Your task to perform on an android device: change the clock style Image 0: 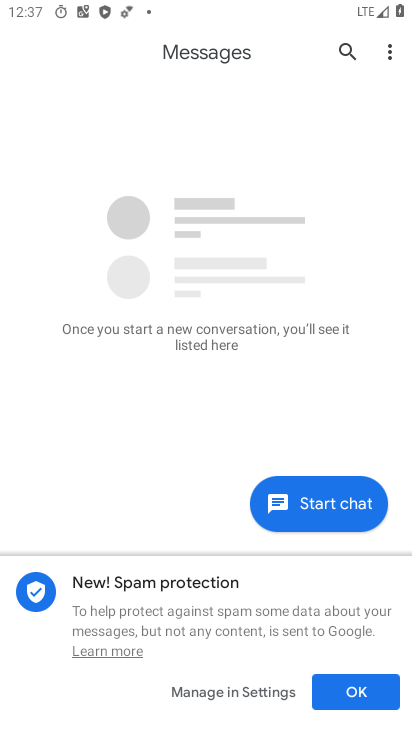
Step 0: press home button
Your task to perform on an android device: change the clock style Image 1: 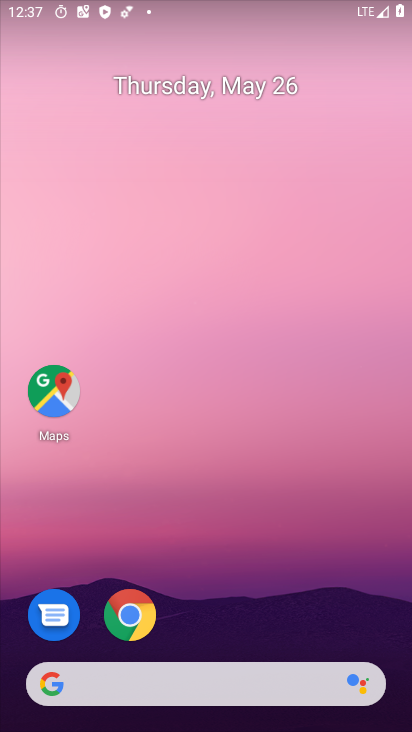
Step 1: drag from (231, 624) to (212, 231)
Your task to perform on an android device: change the clock style Image 2: 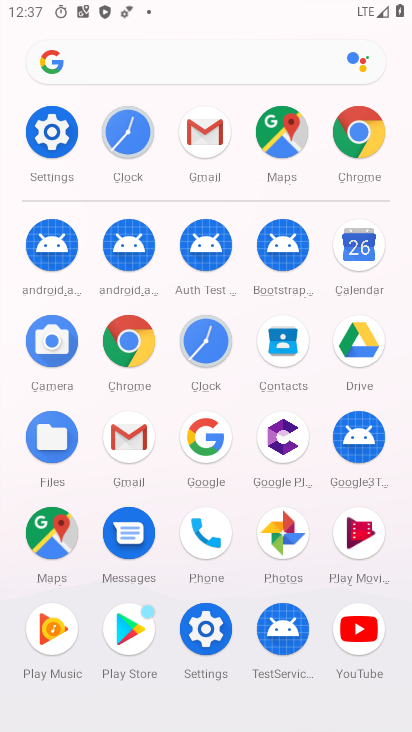
Step 2: click (127, 141)
Your task to perform on an android device: change the clock style Image 3: 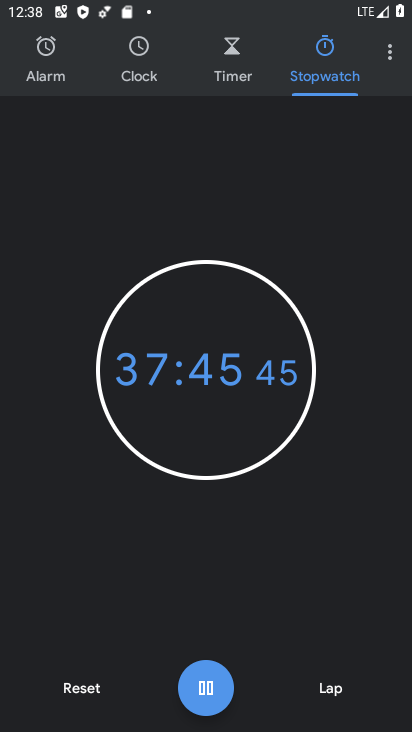
Step 3: click (390, 58)
Your task to perform on an android device: change the clock style Image 4: 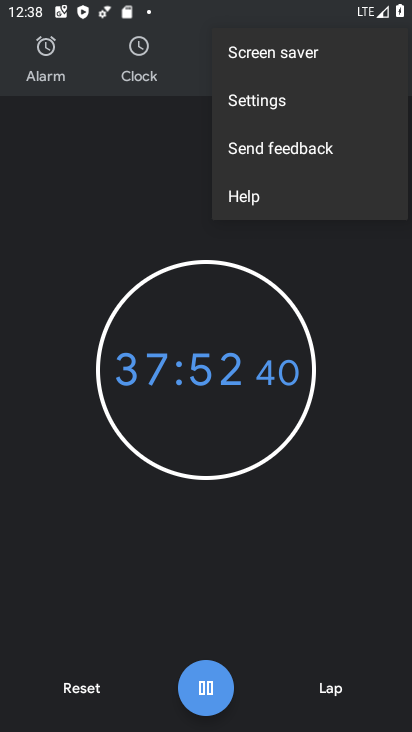
Step 4: click (328, 102)
Your task to perform on an android device: change the clock style Image 5: 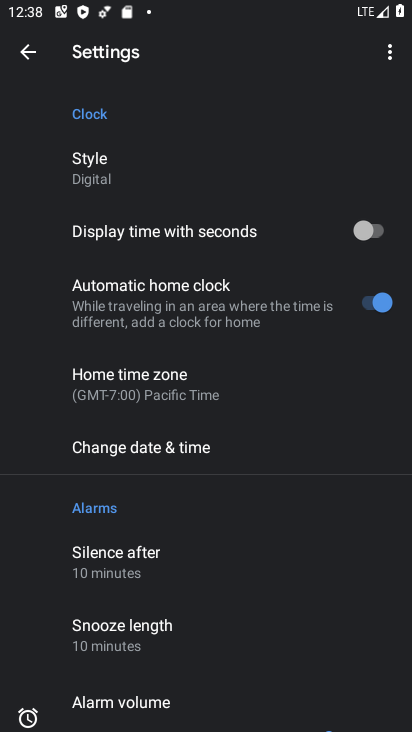
Step 5: click (165, 178)
Your task to perform on an android device: change the clock style Image 6: 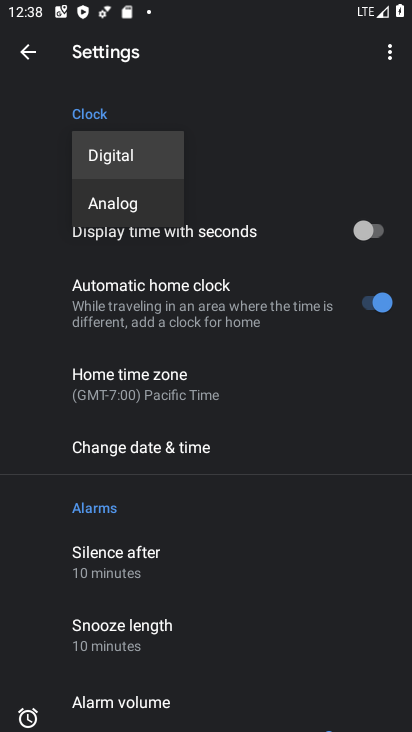
Step 6: click (151, 198)
Your task to perform on an android device: change the clock style Image 7: 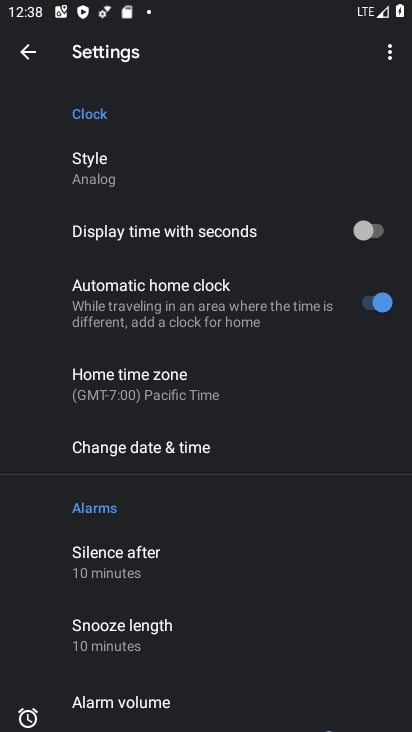
Step 7: task complete